Your task to perform on an android device: Go to Amazon Image 0: 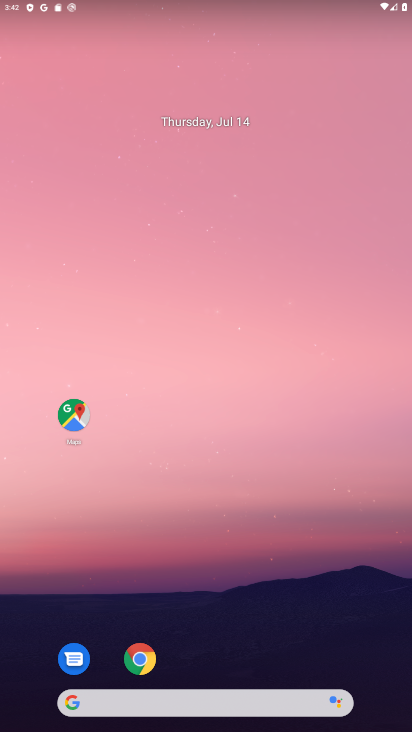
Step 0: drag from (321, 590) to (328, 180)
Your task to perform on an android device: Go to Amazon Image 1: 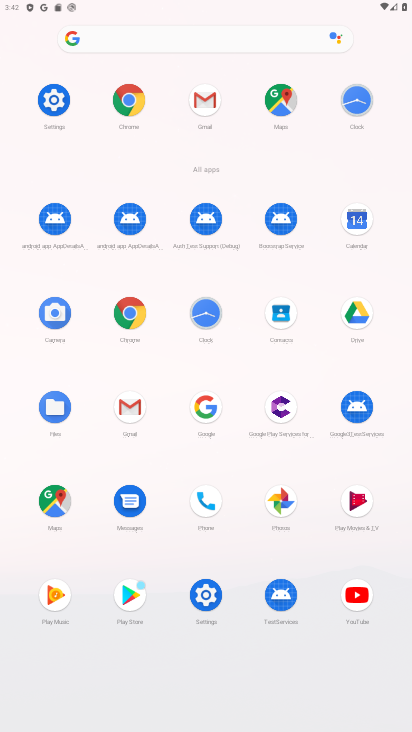
Step 1: click (136, 318)
Your task to perform on an android device: Go to Amazon Image 2: 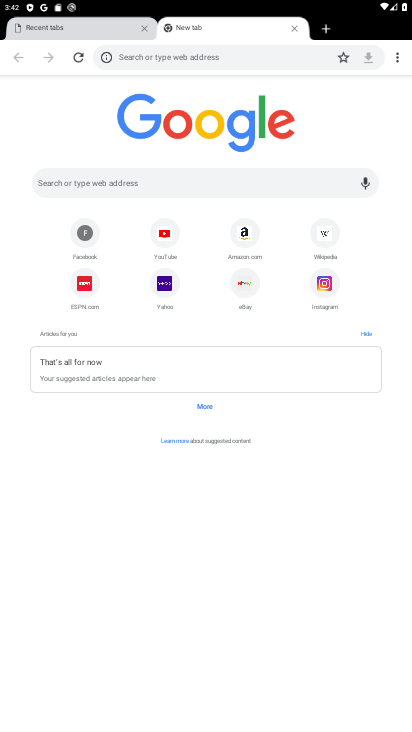
Step 2: click (186, 183)
Your task to perform on an android device: Go to Amazon Image 3: 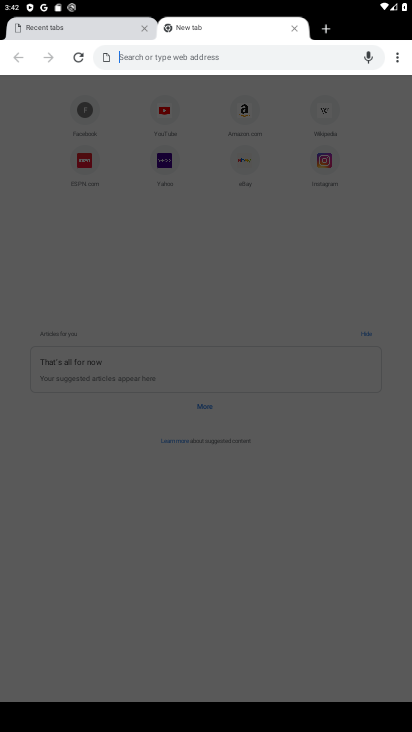
Step 3: type "amazon"
Your task to perform on an android device: Go to Amazon Image 4: 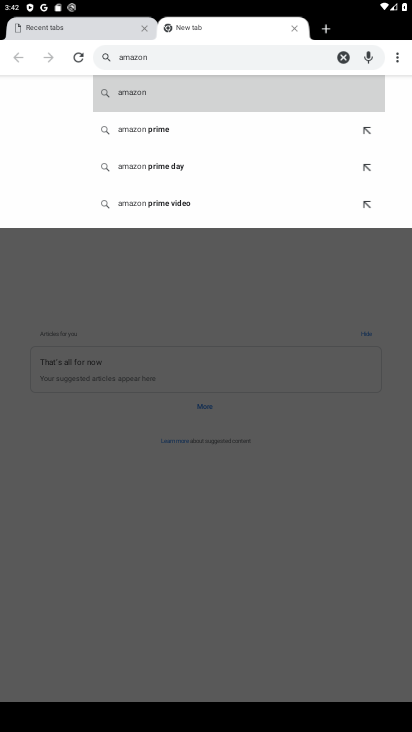
Step 4: click (223, 96)
Your task to perform on an android device: Go to Amazon Image 5: 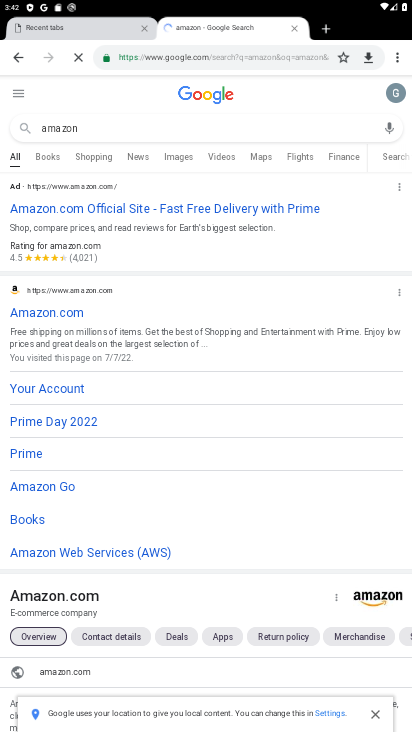
Step 5: task complete